Your task to perform on an android device: Open battery settings Image 0: 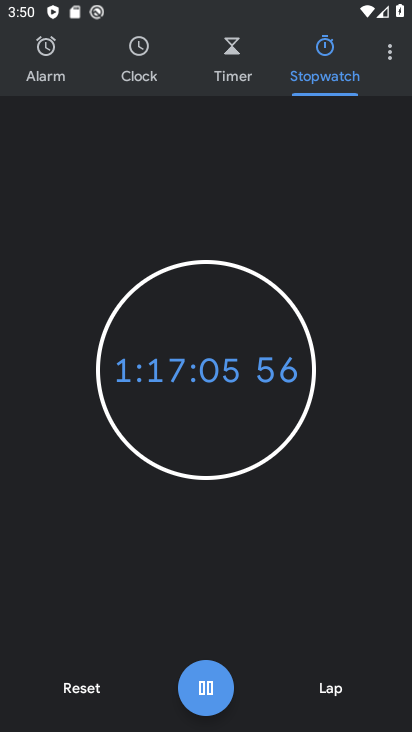
Step 0: press home button
Your task to perform on an android device: Open battery settings Image 1: 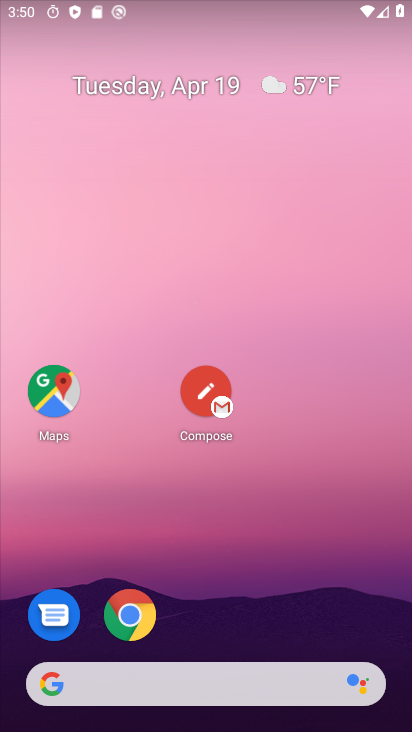
Step 1: drag from (286, 628) to (345, 12)
Your task to perform on an android device: Open battery settings Image 2: 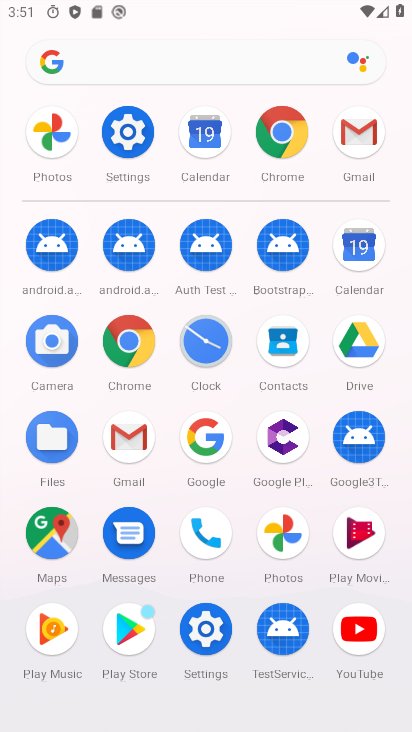
Step 2: click (201, 639)
Your task to perform on an android device: Open battery settings Image 3: 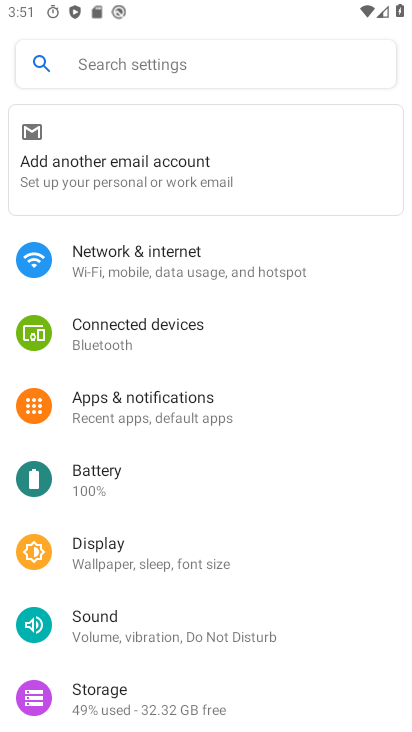
Step 3: drag from (198, 642) to (230, 145)
Your task to perform on an android device: Open battery settings Image 4: 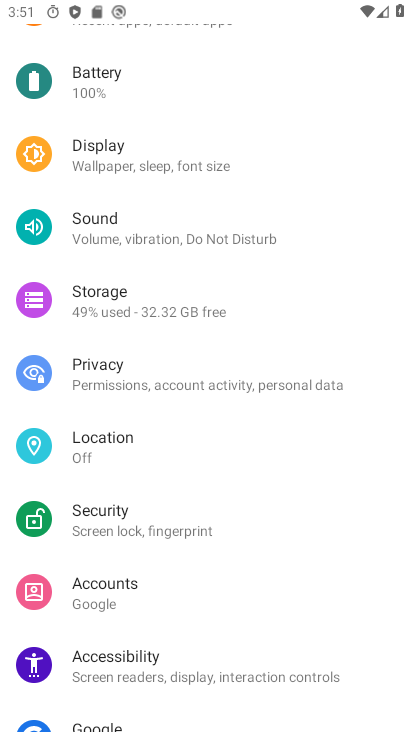
Step 4: drag from (193, 277) to (184, 649)
Your task to perform on an android device: Open battery settings Image 5: 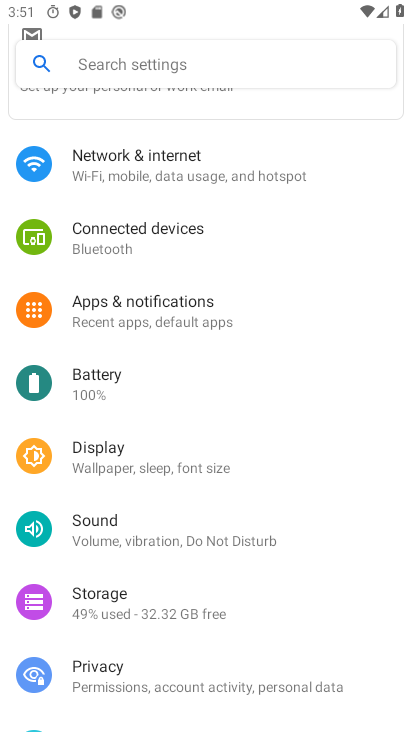
Step 5: click (140, 380)
Your task to perform on an android device: Open battery settings Image 6: 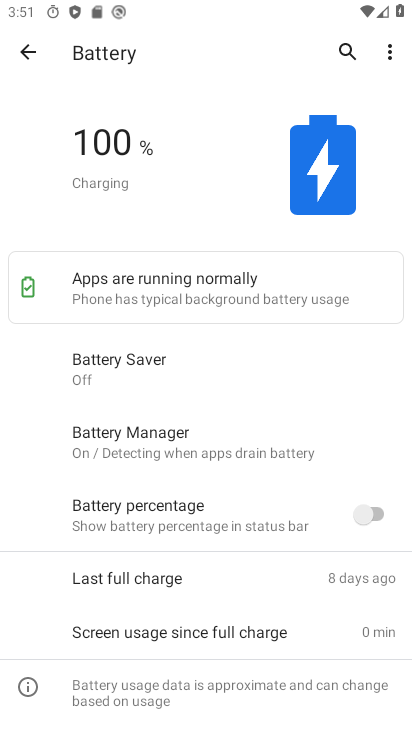
Step 6: task complete